Your task to perform on an android device: Show me the alarms in the clock app Image 0: 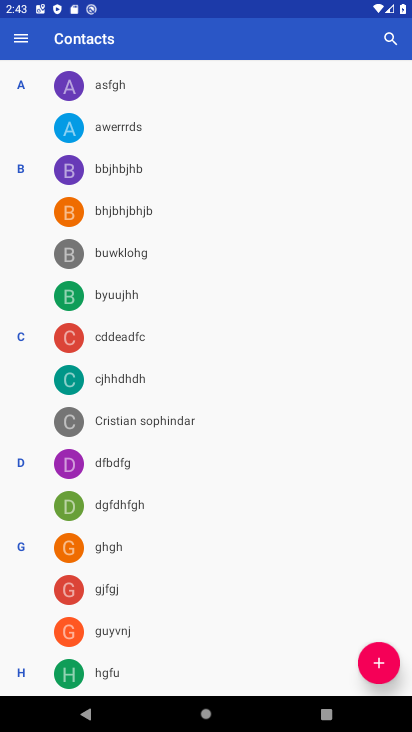
Step 0: press home button
Your task to perform on an android device: Show me the alarms in the clock app Image 1: 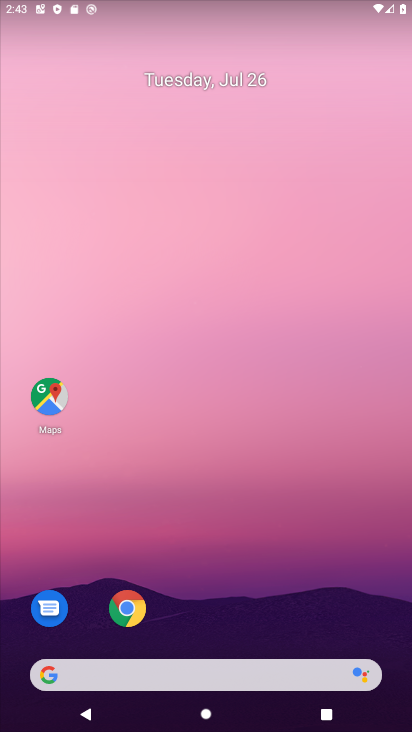
Step 1: drag from (225, 466) to (260, 35)
Your task to perform on an android device: Show me the alarms in the clock app Image 2: 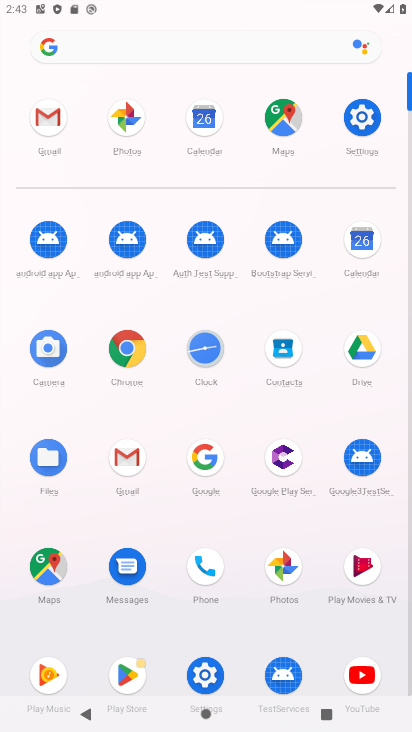
Step 2: click (192, 347)
Your task to perform on an android device: Show me the alarms in the clock app Image 3: 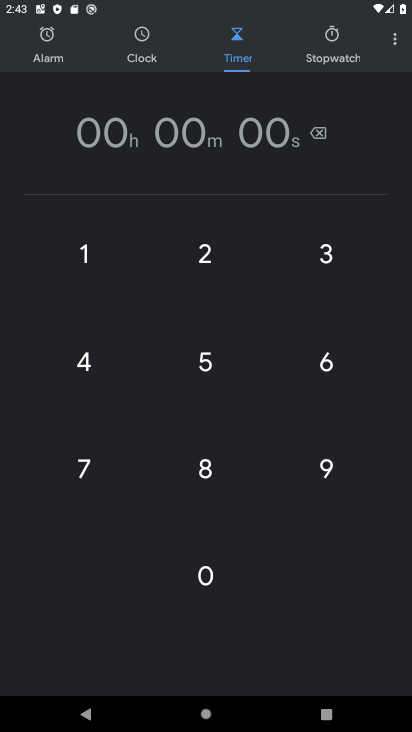
Step 3: click (43, 40)
Your task to perform on an android device: Show me the alarms in the clock app Image 4: 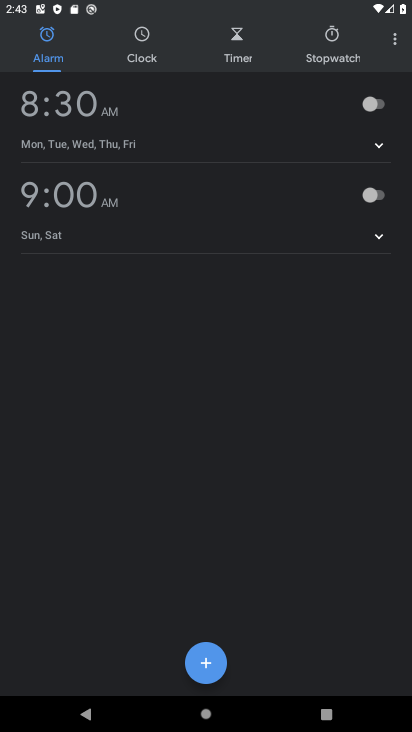
Step 4: task complete